Your task to perform on an android device: turn off notifications settings in the gmail app Image 0: 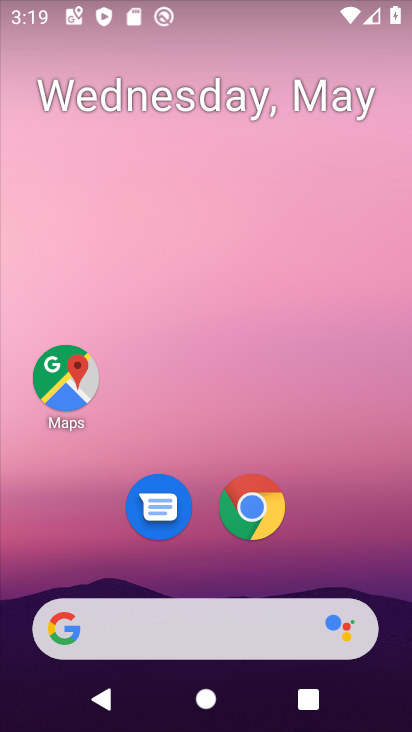
Step 0: drag from (185, 576) to (264, 112)
Your task to perform on an android device: turn off notifications settings in the gmail app Image 1: 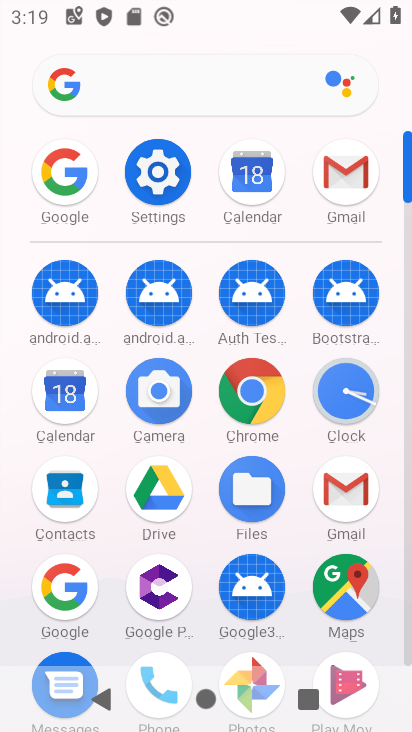
Step 1: click (347, 167)
Your task to perform on an android device: turn off notifications settings in the gmail app Image 2: 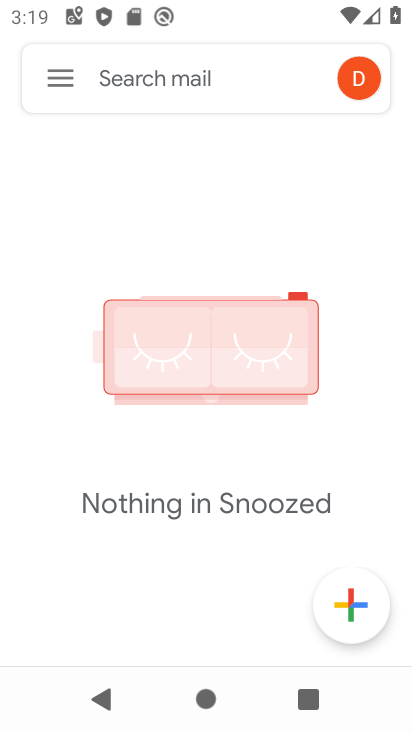
Step 2: click (40, 71)
Your task to perform on an android device: turn off notifications settings in the gmail app Image 3: 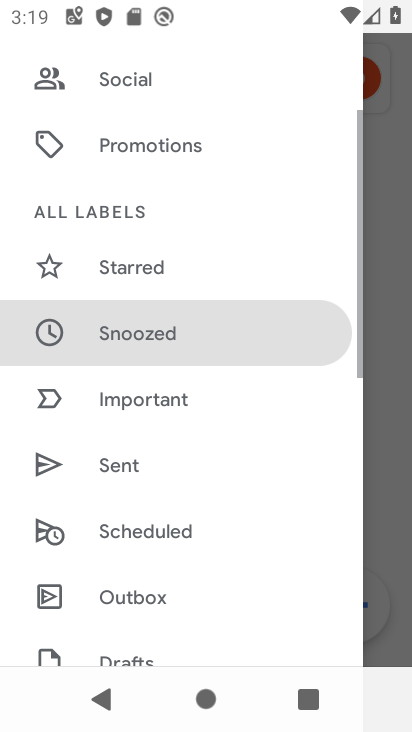
Step 3: drag from (197, 610) to (252, 58)
Your task to perform on an android device: turn off notifications settings in the gmail app Image 4: 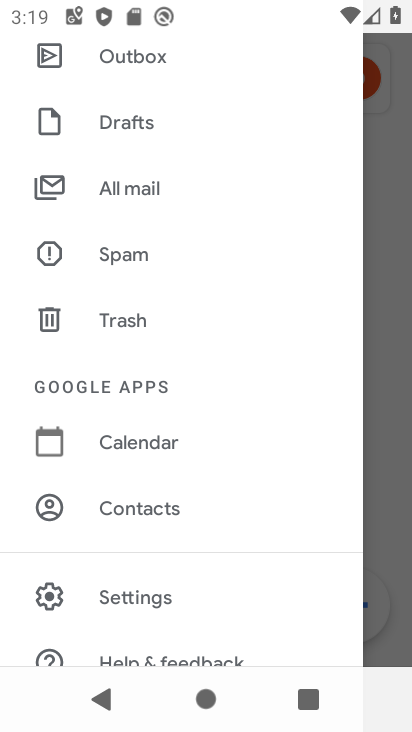
Step 4: click (143, 591)
Your task to perform on an android device: turn off notifications settings in the gmail app Image 5: 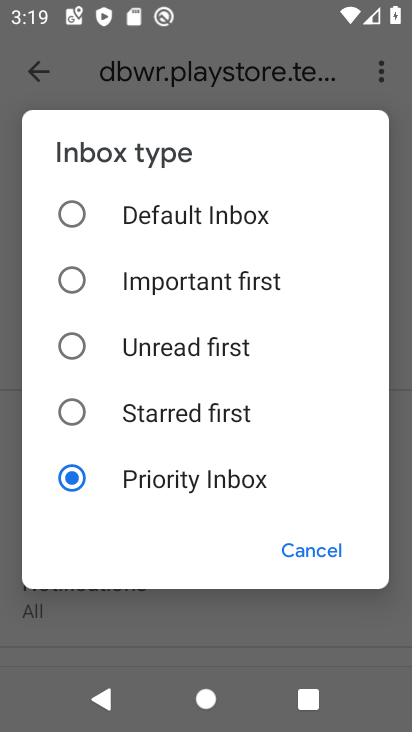
Step 5: click (292, 556)
Your task to perform on an android device: turn off notifications settings in the gmail app Image 6: 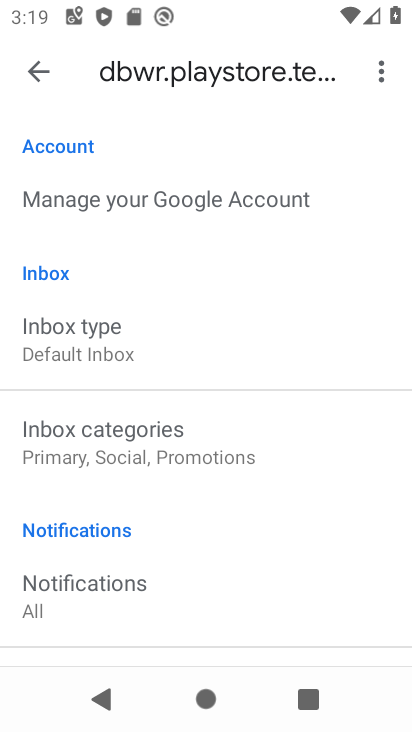
Step 6: drag from (125, 580) to (194, 88)
Your task to perform on an android device: turn off notifications settings in the gmail app Image 7: 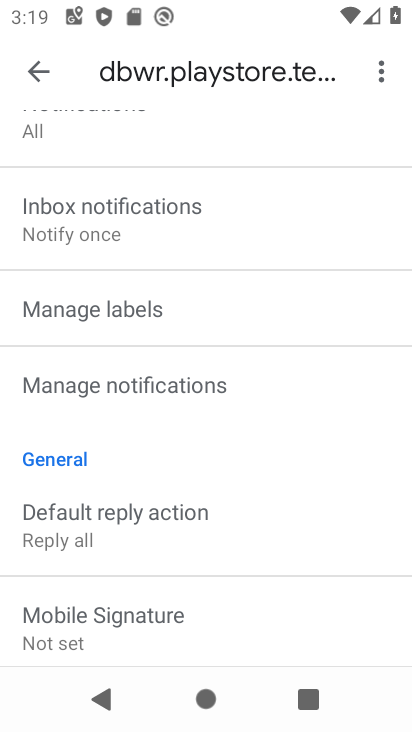
Step 7: click (125, 390)
Your task to perform on an android device: turn off notifications settings in the gmail app Image 8: 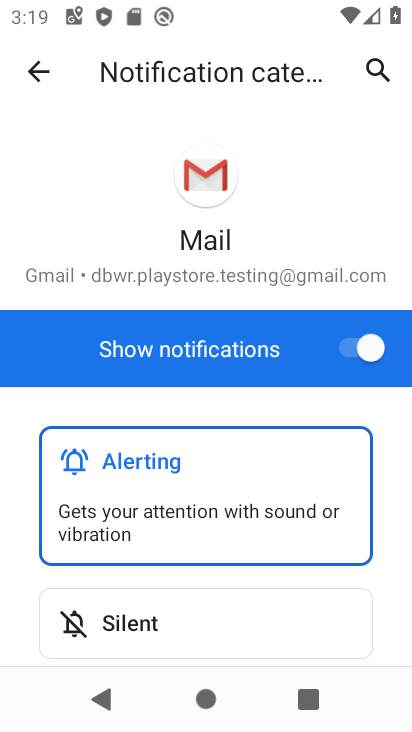
Step 8: click (351, 349)
Your task to perform on an android device: turn off notifications settings in the gmail app Image 9: 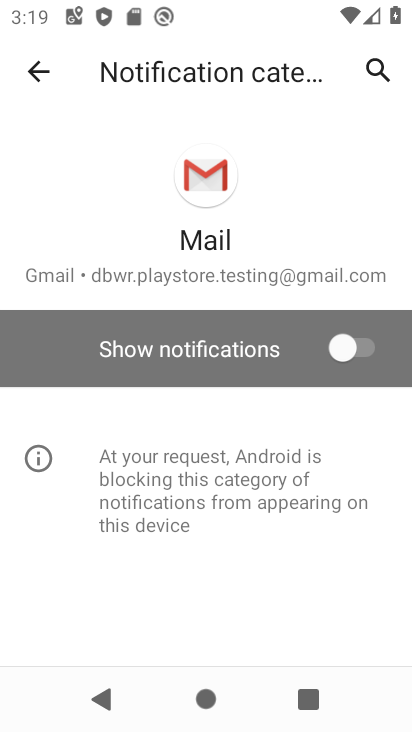
Step 9: task complete